Your task to perform on an android device: see tabs open on other devices in the chrome app Image 0: 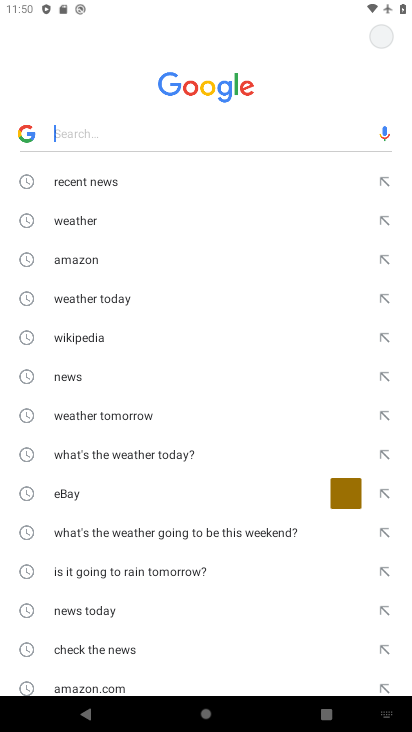
Step 0: press home button
Your task to perform on an android device: see tabs open on other devices in the chrome app Image 1: 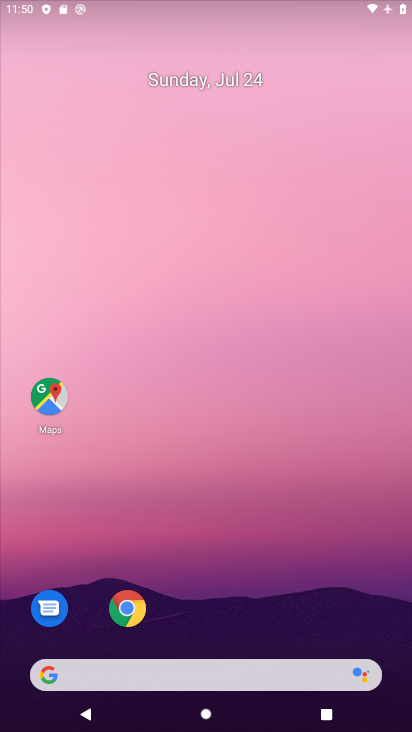
Step 1: drag from (206, 643) to (312, 166)
Your task to perform on an android device: see tabs open on other devices in the chrome app Image 2: 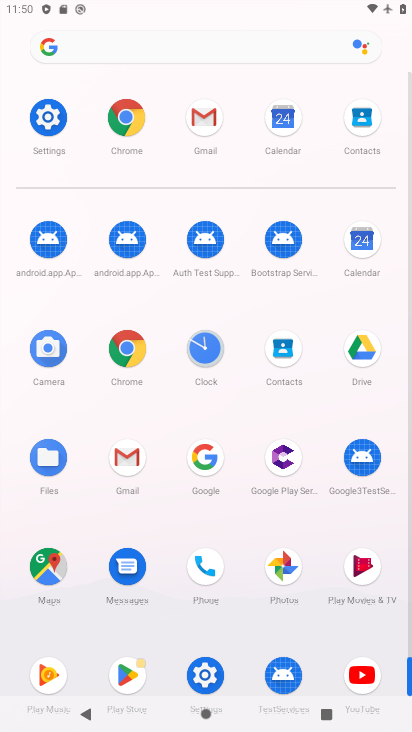
Step 2: click (128, 125)
Your task to perform on an android device: see tabs open on other devices in the chrome app Image 3: 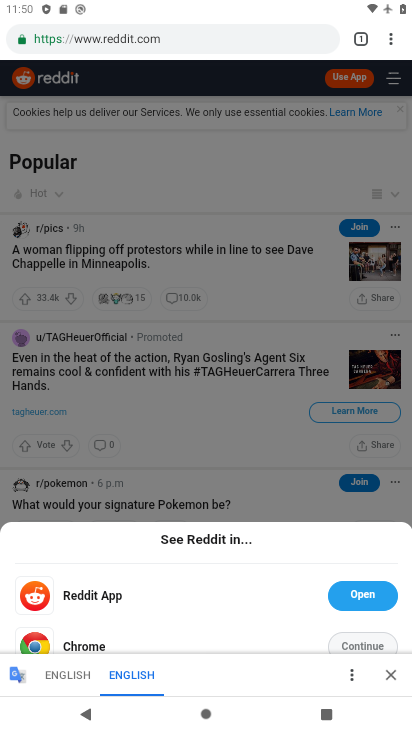
Step 3: click (391, 40)
Your task to perform on an android device: see tabs open on other devices in the chrome app Image 4: 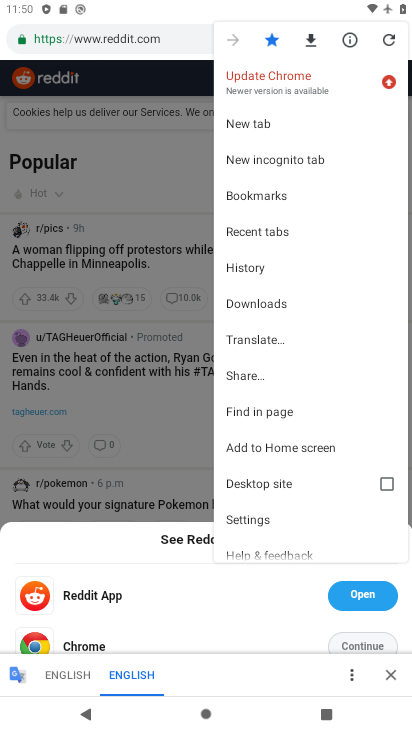
Step 4: click (176, 74)
Your task to perform on an android device: see tabs open on other devices in the chrome app Image 5: 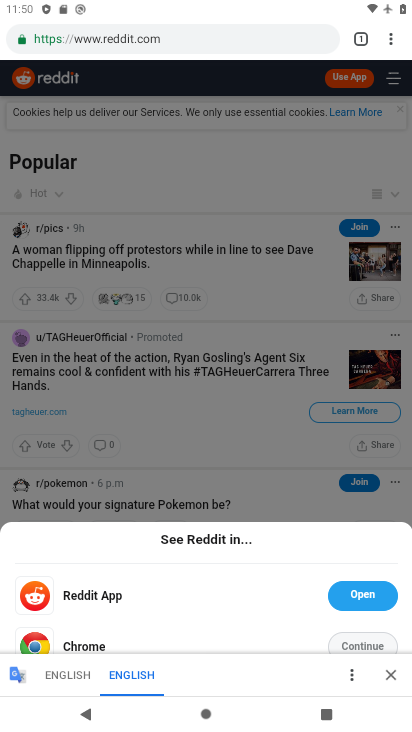
Step 5: task complete